Your task to perform on an android device: Search for Mexican restaurants on Maps Image 0: 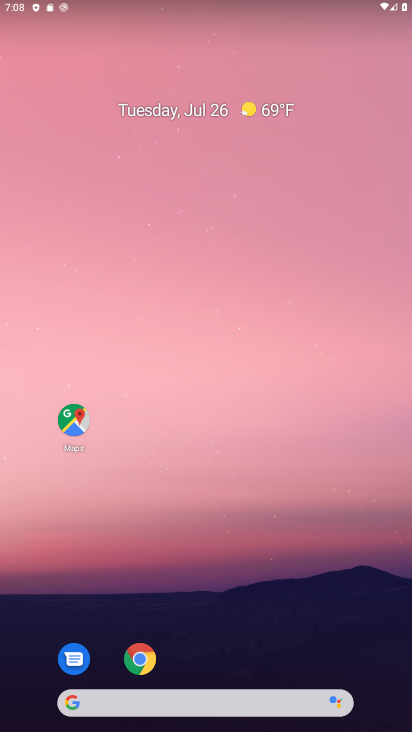
Step 0: click (89, 422)
Your task to perform on an android device: Search for Mexican restaurants on Maps Image 1: 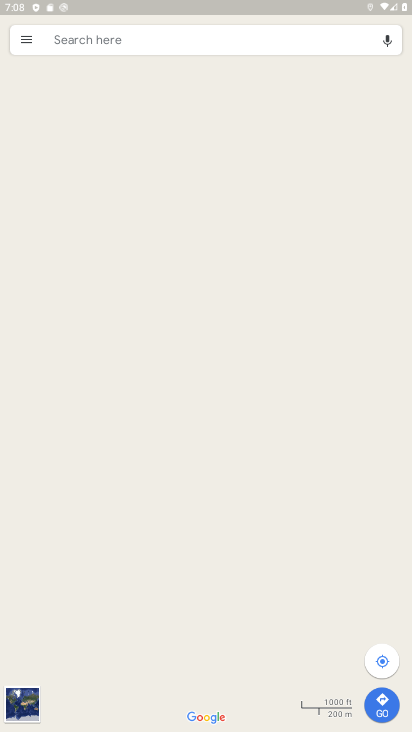
Step 1: click (76, 36)
Your task to perform on an android device: Search for Mexican restaurants on Maps Image 2: 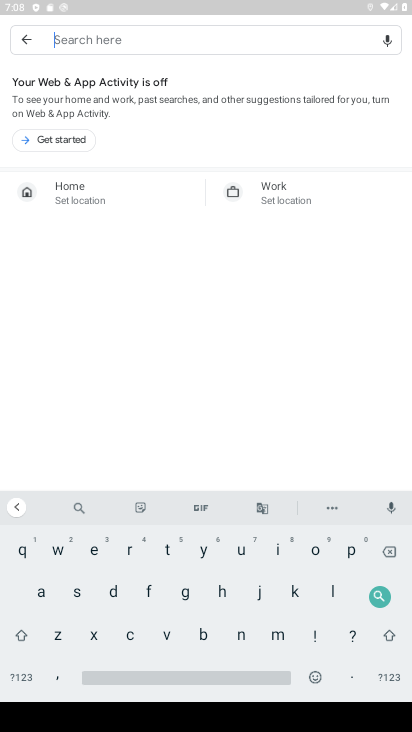
Step 2: click (281, 632)
Your task to perform on an android device: Search for Mexican restaurants on Maps Image 3: 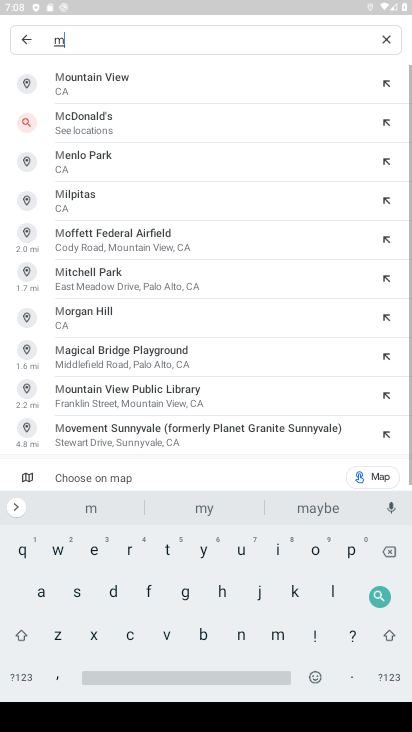
Step 3: click (91, 543)
Your task to perform on an android device: Search for Mexican restaurants on Maps Image 4: 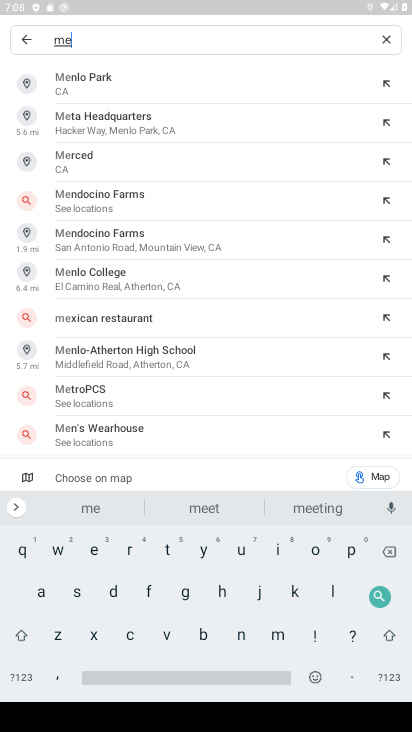
Step 4: click (98, 634)
Your task to perform on an android device: Search for Mexican restaurants on Maps Image 5: 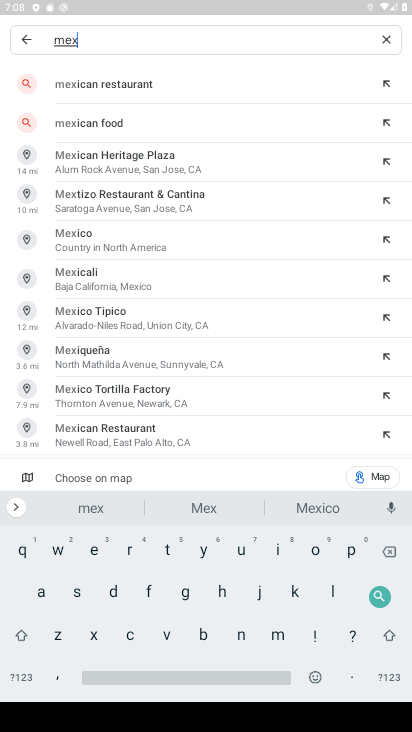
Step 5: click (100, 84)
Your task to perform on an android device: Search for Mexican restaurants on Maps Image 6: 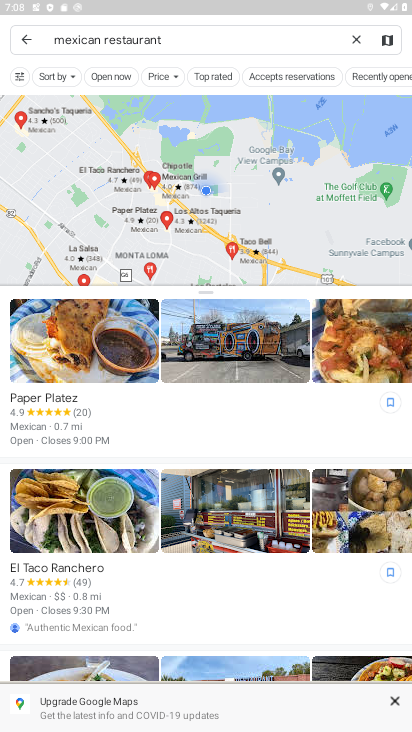
Step 6: task complete